Your task to perform on an android device: open app "Microsoft Authenticator" (install if not already installed) Image 0: 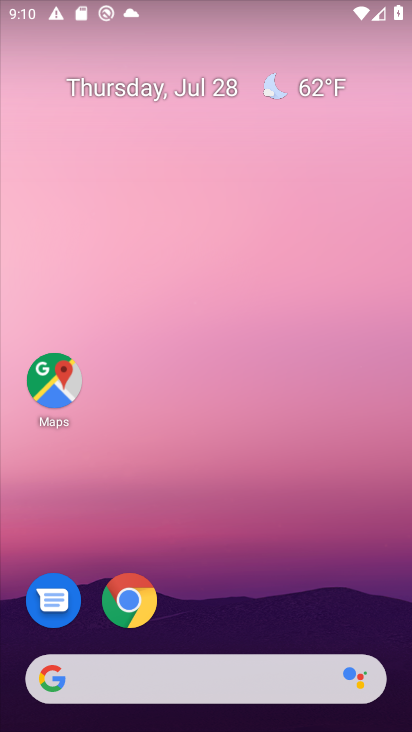
Step 0: drag from (259, 533) to (240, 3)
Your task to perform on an android device: open app "Microsoft Authenticator" (install if not already installed) Image 1: 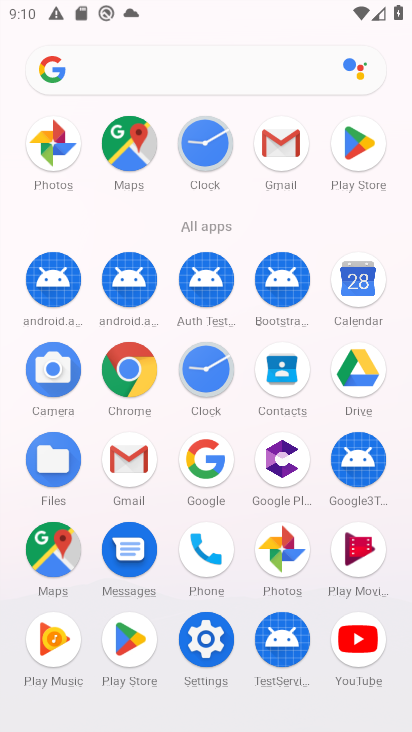
Step 1: click (358, 159)
Your task to perform on an android device: open app "Microsoft Authenticator" (install if not already installed) Image 2: 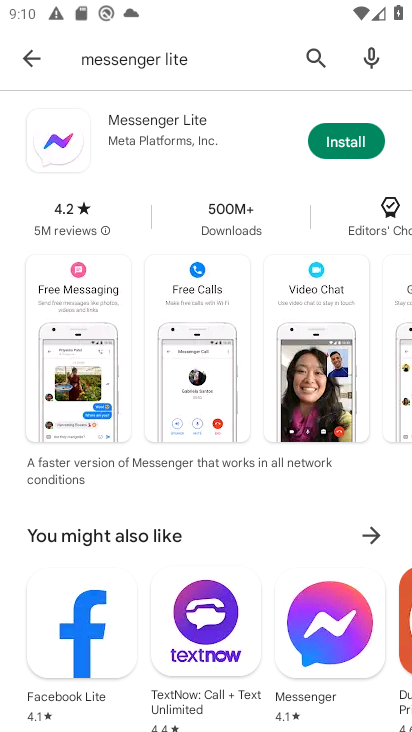
Step 2: click (310, 47)
Your task to perform on an android device: open app "Microsoft Authenticator" (install if not already installed) Image 3: 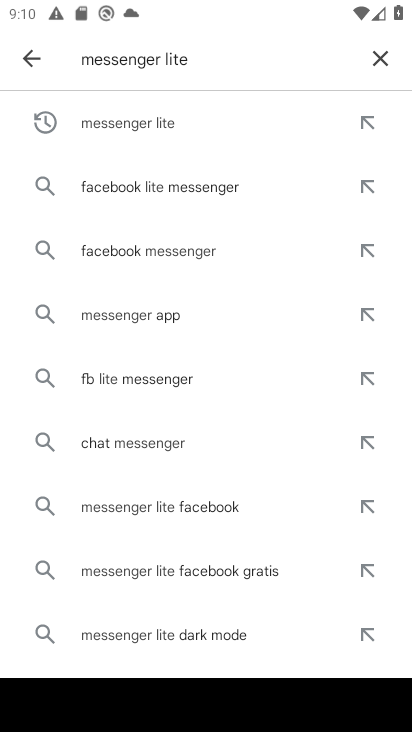
Step 3: click (375, 67)
Your task to perform on an android device: open app "Microsoft Authenticator" (install if not already installed) Image 4: 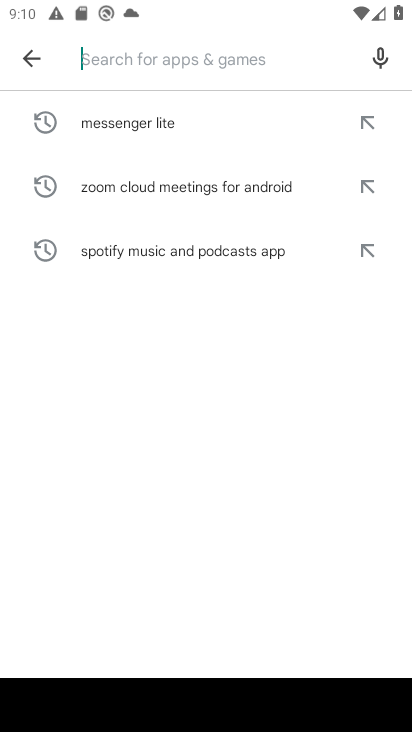
Step 4: click (123, 66)
Your task to perform on an android device: open app "Microsoft Authenticator" (install if not already installed) Image 5: 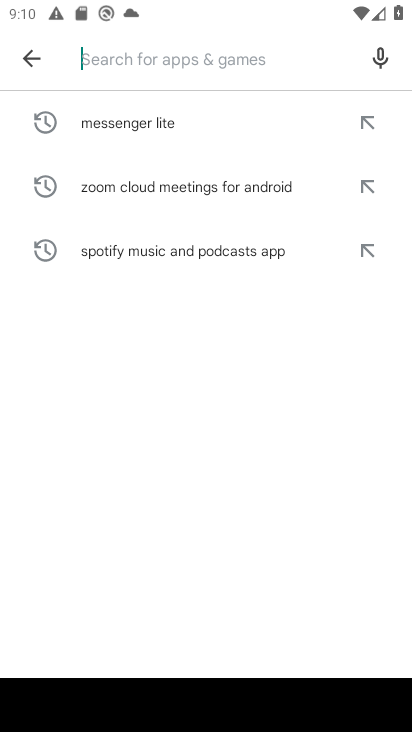
Step 5: type "Microsoft Authenticator"
Your task to perform on an android device: open app "Microsoft Authenticator" (install if not already installed) Image 6: 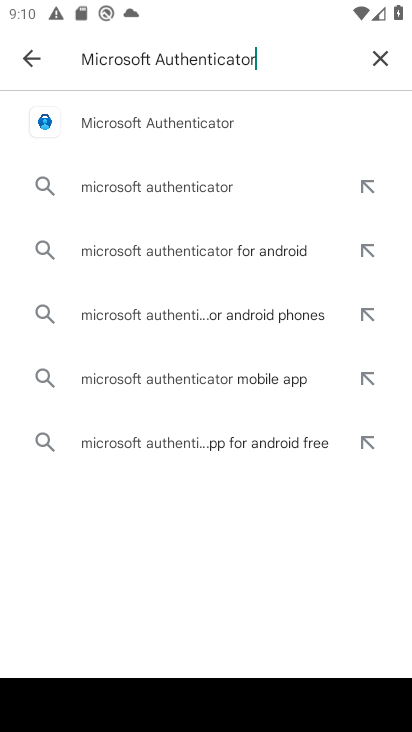
Step 6: click (153, 128)
Your task to perform on an android device: open app "Microsoft Authenticator" (install if not already installed) Image 7: 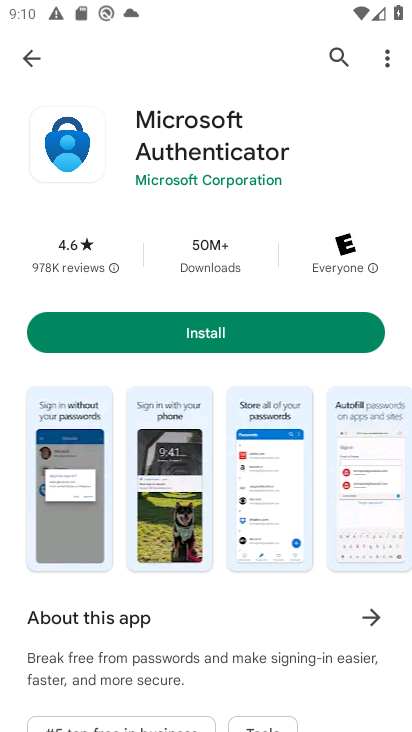
Step 7: click (157, 336)
Your task to perform on an android device: open app "Microsoft Authenticator" (install if not already installed) Image 8: 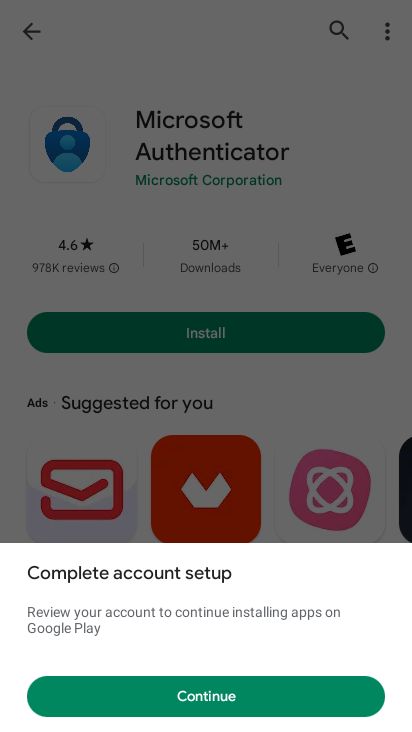
Step 8: click (181, 708)
Your task to perform on an android device: open app "Microsoft Authenticator" (install if not already installed) Image 9: 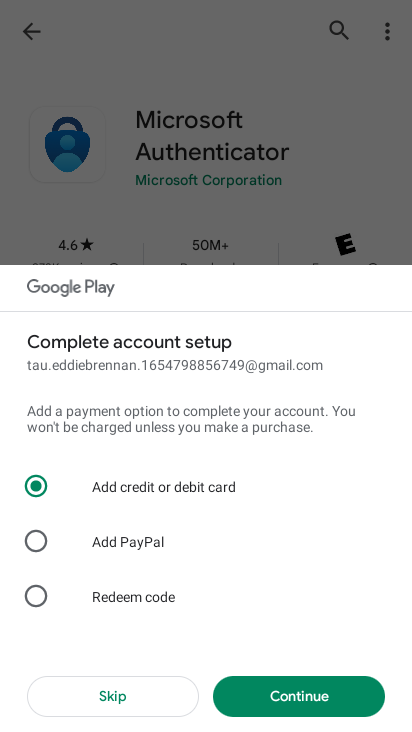
Step 9: click (113, 694)
Your task to perform on an android device: open app "Microsoft Authenticator" (install if not already installed) Image 10: 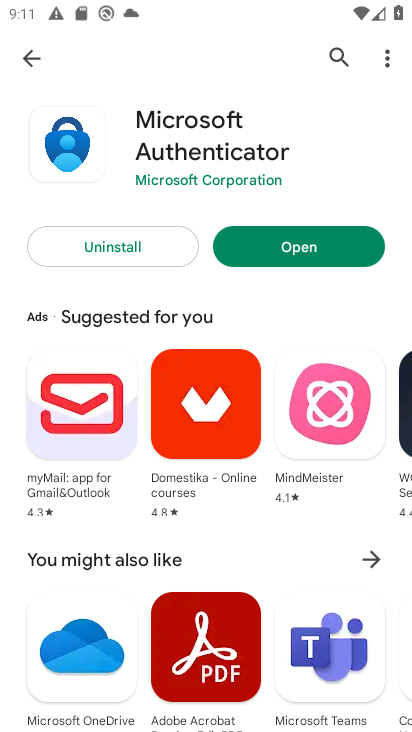
Step 10: click (273, 256)
Your task to perform on an android device: open app "Microsoft Authenticator" (install if not already installed) Image 11: 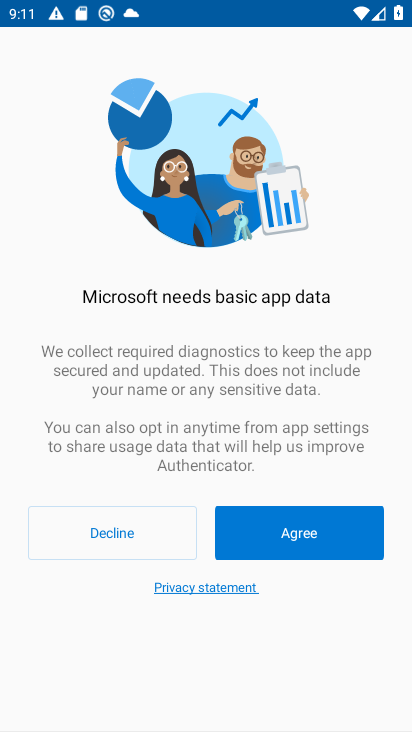
Step 11: task complete